Your task to perform on an android device: What's on my calendar tomorrow? Image 0: 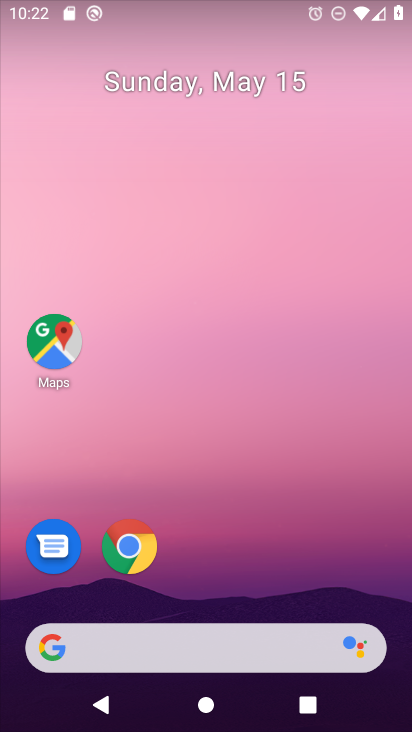
Step 0: drag from (304, 569) to (406, 164)
Your task to perform on an android device: What's on my calendar tomorrow? Image 1: 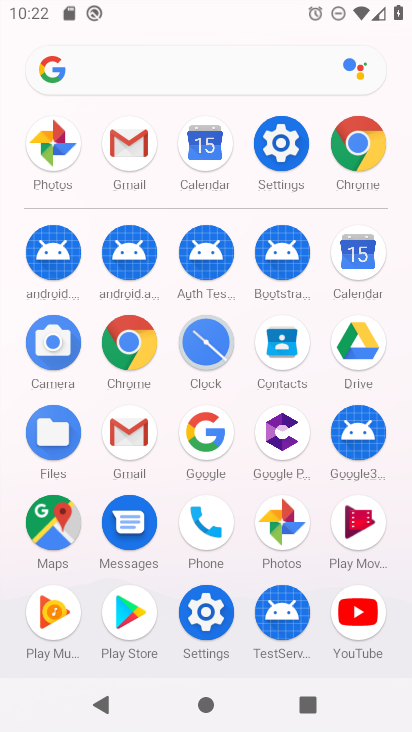
Step 1: click (367, 248)
Your task to perform on an android device: What's on my calendar tomorrow? Image 2: 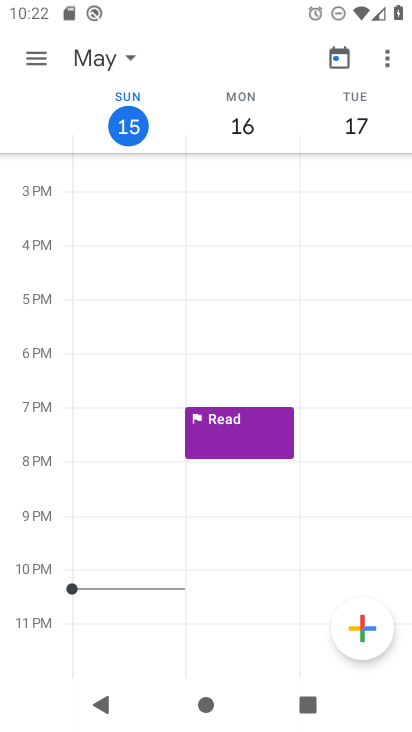
Step 2: click (236, 111)
Your task to perform on an android device: What's on my calendar tomorrow? Image 3: 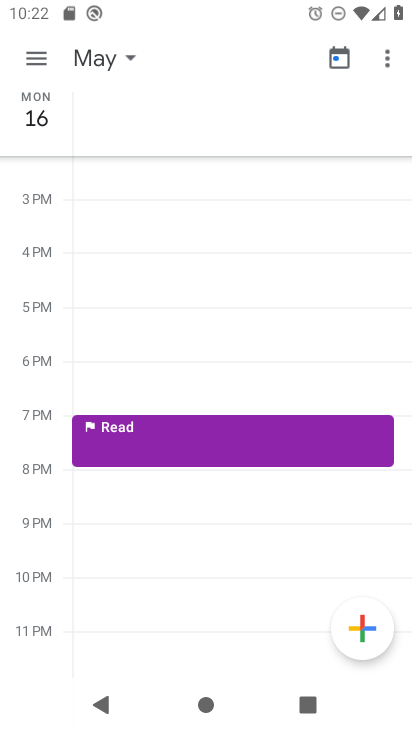
Step 3: task complete